Your task to perform on an android device: Check the news Image 0: 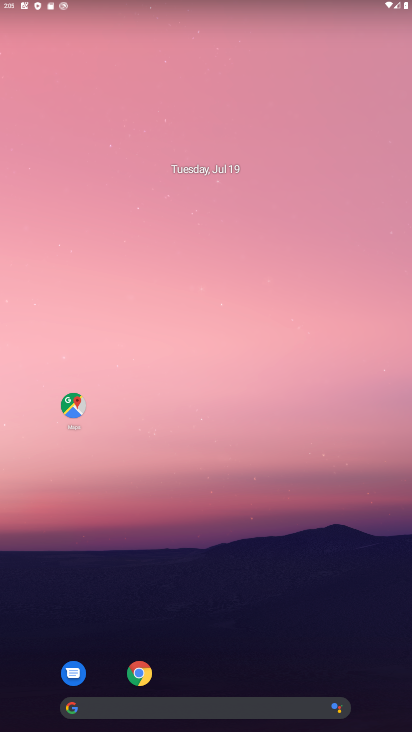
Step 0: drag from (166, 704) to (208, 49)
Your task to perform on an android device: Check the news Image 1: 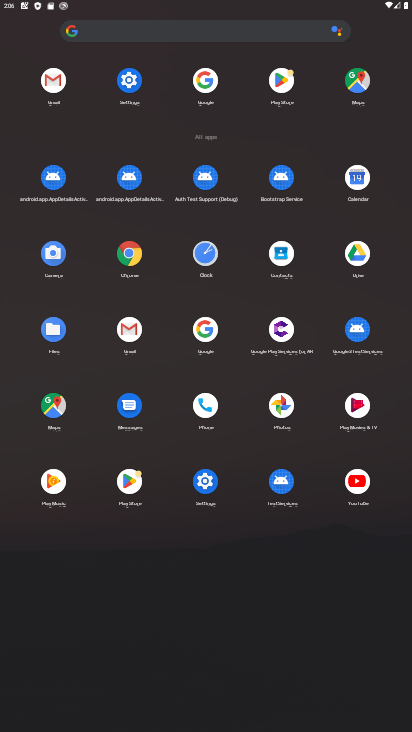
Step 1: click (205, 78)
Your task to perform on an android device: Check the news Image 2: 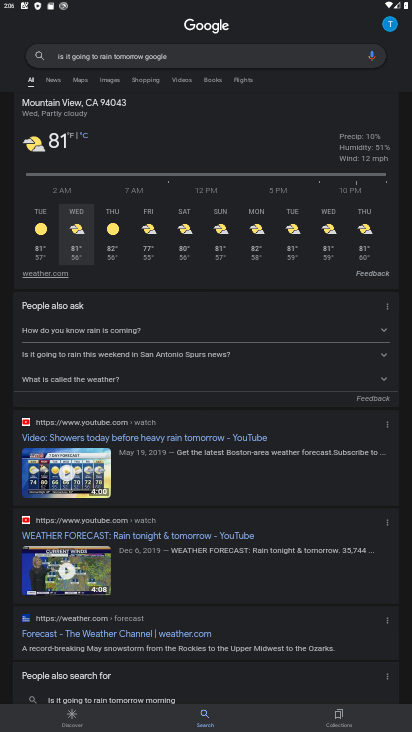
Step 2: click (211, 62)
Your task to perform on an android device: Check the news Image 3: 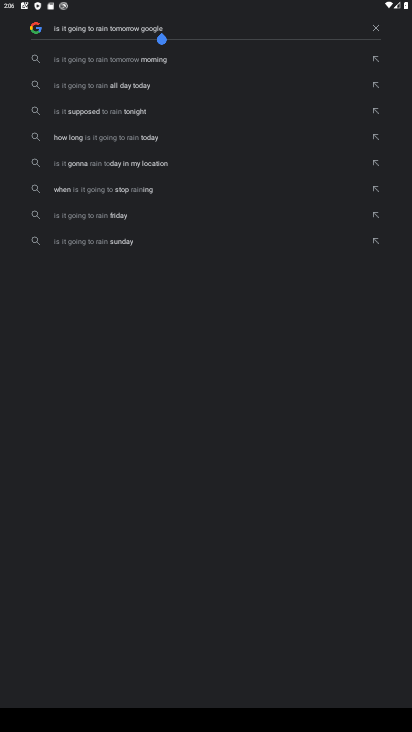
Step 3: click (376, 30)
Your task to perform on an android device: Check the news Image 4: 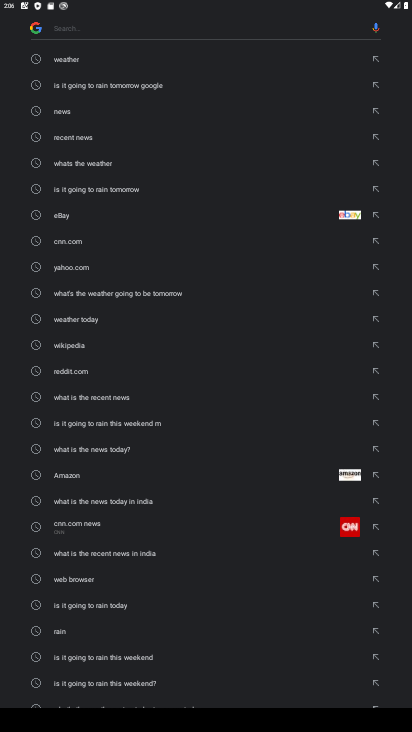
Step 4: type "news"
Your task to perform on an android device: Check the news Image 5: 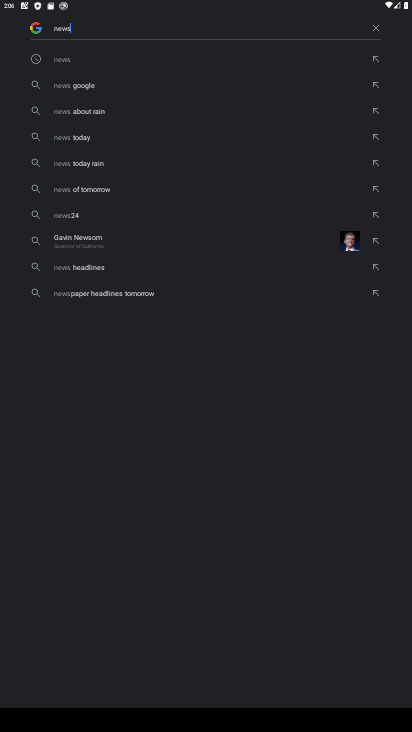
Step 5: click (69, 64)
Your task to perform on an android device: Check the news Image 6: 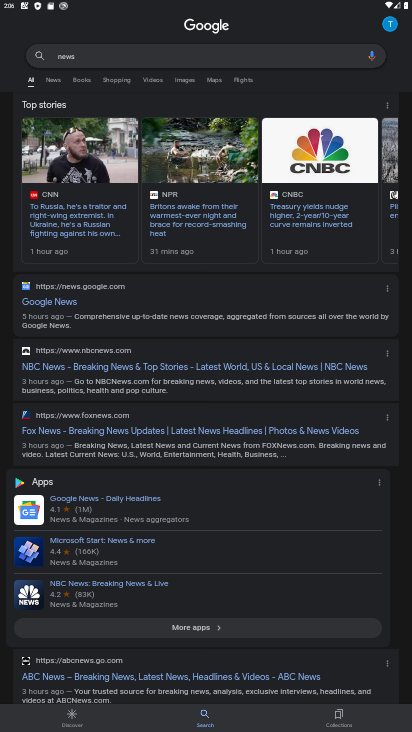
Step 6: click (98, 221)
Your task to perform on an android device: Check the news Image 7: 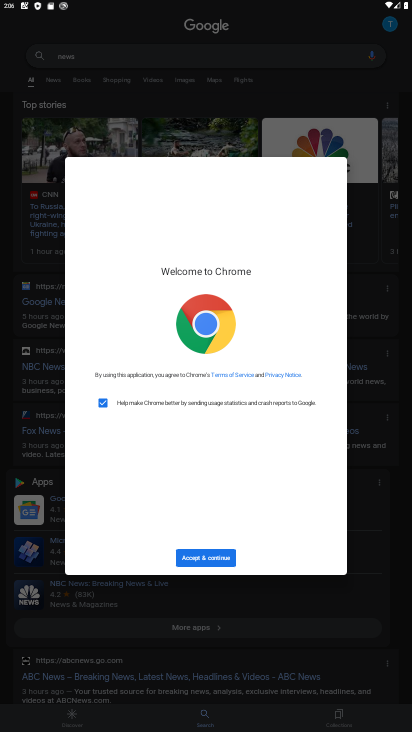
Step 7: click (215, 558)
Your task to perform on an android device: Check the news Image 8: 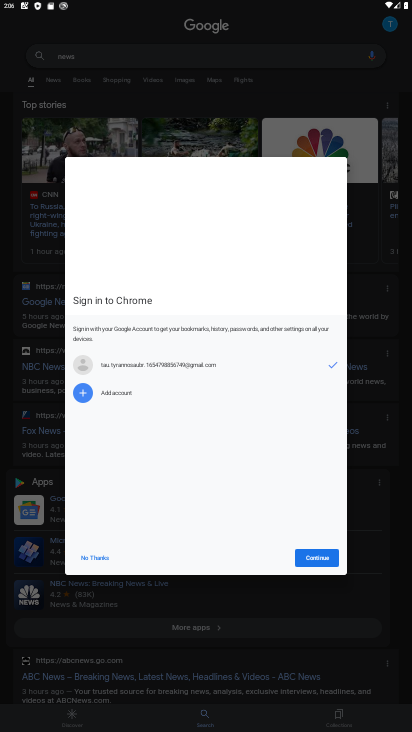
Step 8: click (326, 559)
Your task to perform on an android device: Check the news Image 9: 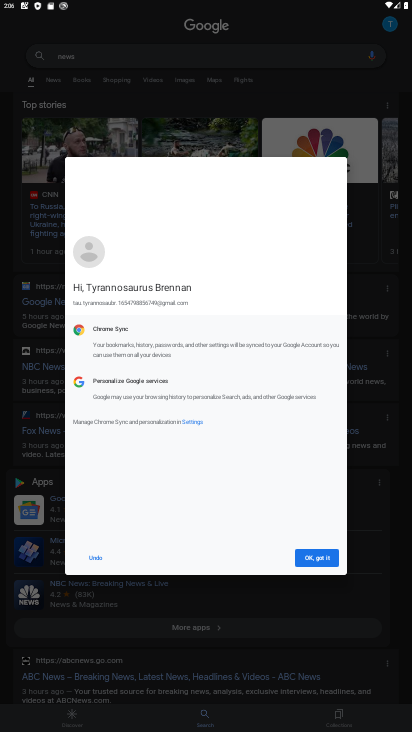
Step 9: click (322, 559)
Your task to perform on an android device: Check the news Image 10: 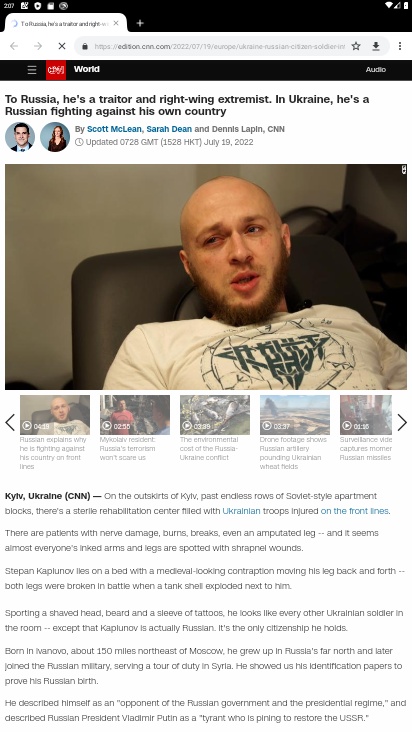
Step 10: task complete